Your task to perform on an android device: Go to accessibility settings Image 0: 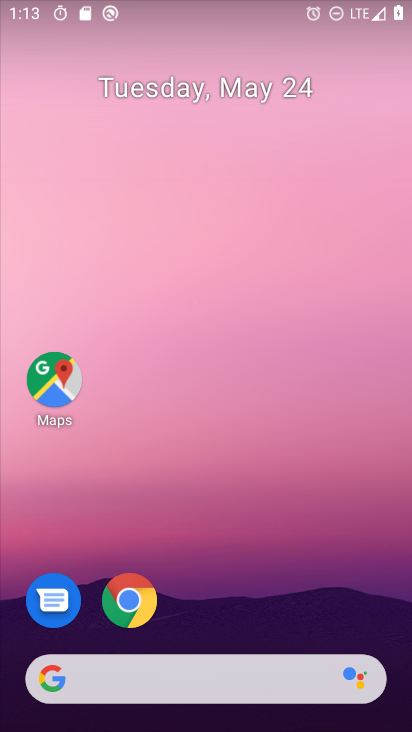
Step 0: drag from (248, 614) to (216, 169)
Your task to perform on an android device: Go to accessibility settings Image 1: 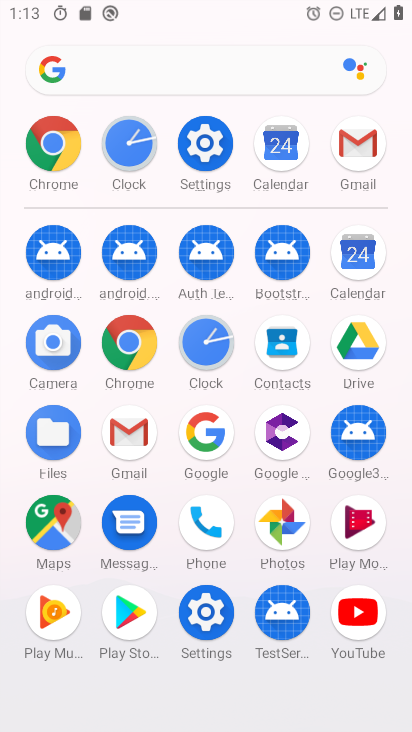
Step 1: click (203, 139)
Your task to perform on an android device: Go to accessibility settings Image 2: 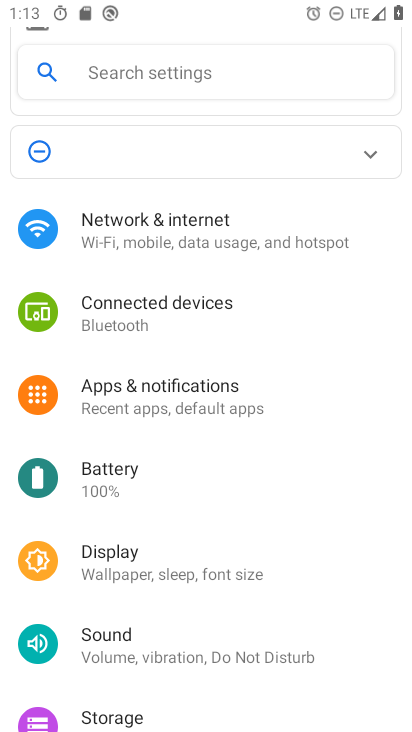
Step 2: drag from (172, 547) to (232, 80)
Your task to perform on an android device: Go to accessibility settings Image 3: 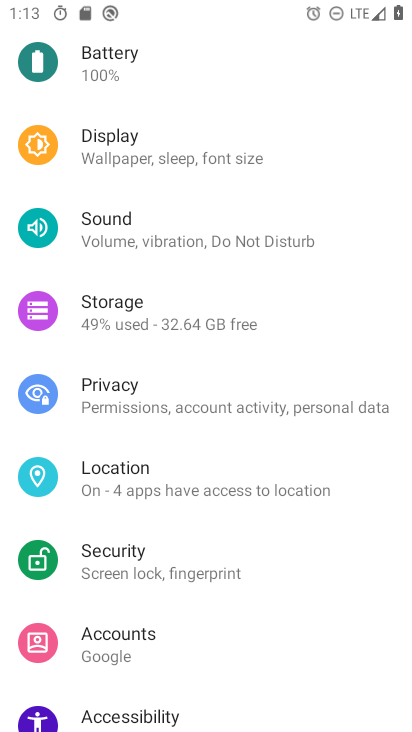
Step 3: drag from (192, 590) to (224, 181)
Your task to perform on an android device: Go to accessibility settings Image 4: 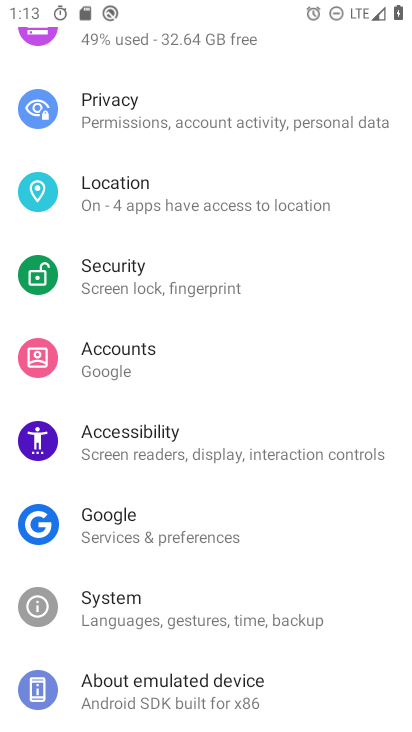
Step 4: click (166, 456)
Your task to perform on an android device: Go to accessibility settings Image 5: 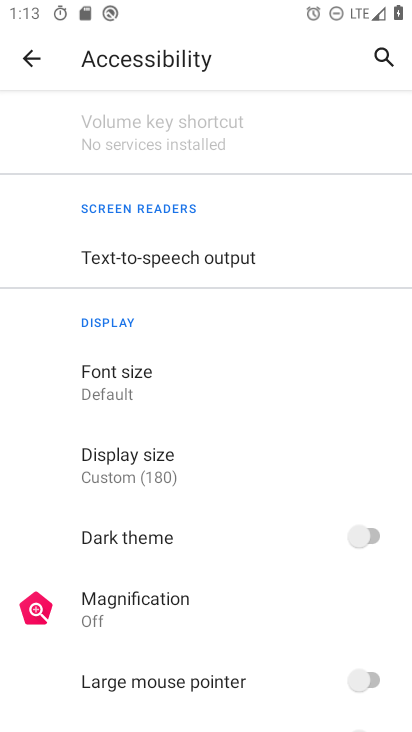
Step 5: task complete